Your task to perform on an android device: Open Amazon Image 0: 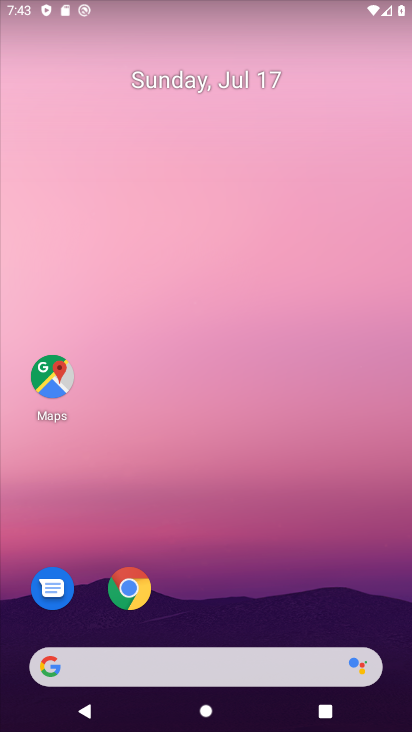
Step 0: drag from (276, 643) to (269, 240)
Your task to perform on an android device: Open Amazon Image 1: 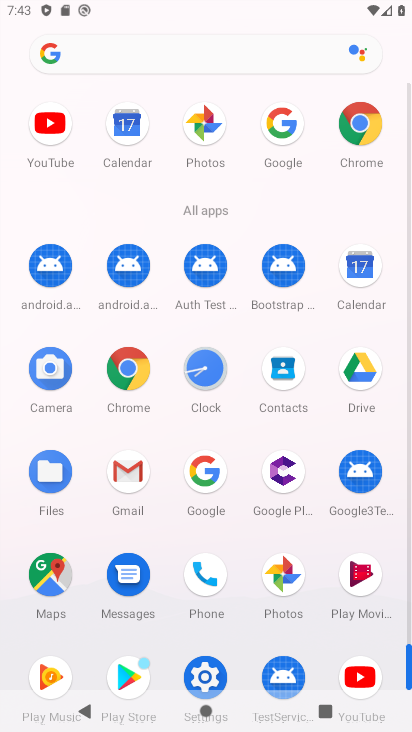
Step 1: drag from (249, 540) to (276, 344)
Your task to perform on an android device: Open Amazon Image 2: 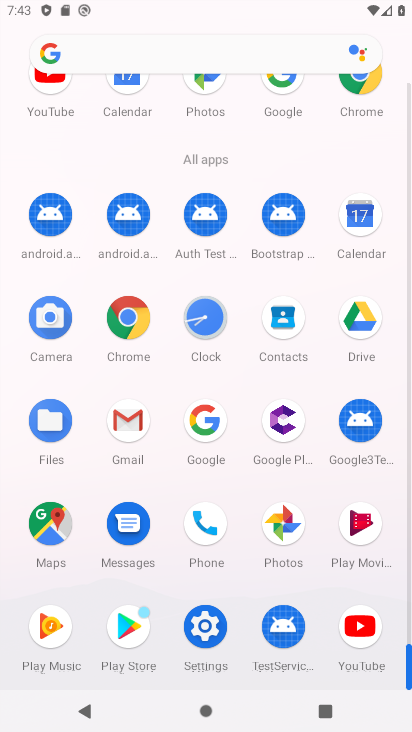
Step 2: click (139, 343)
Your task to perform on an android device: Open Amazon Image 3: 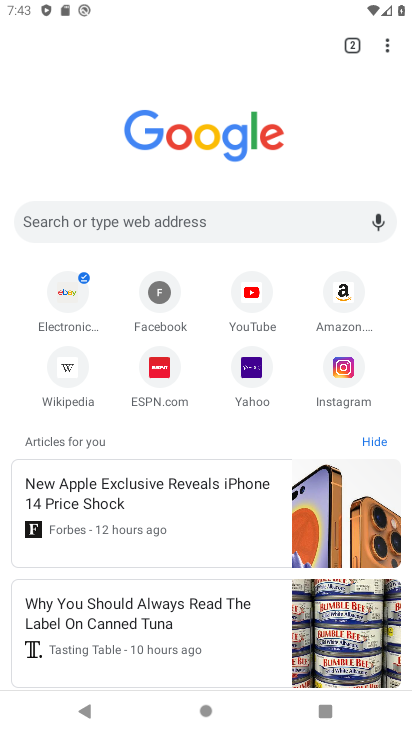
Step 3: click (357, 318)
Your task to perform on an android device: Open Amazon Image 4: 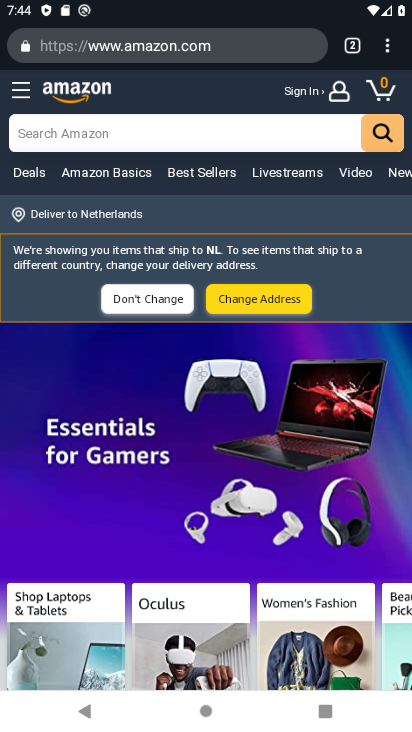
Step 4: task complete